Your task to perform on an android device: Go to Google Image 0: 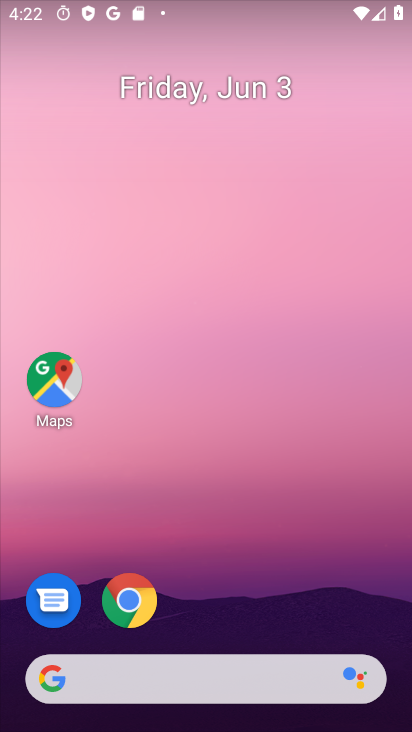
Step 0: drag from (389, 638) to (325, 288)
Your task to perform on an android device: Go to Google Image 1: 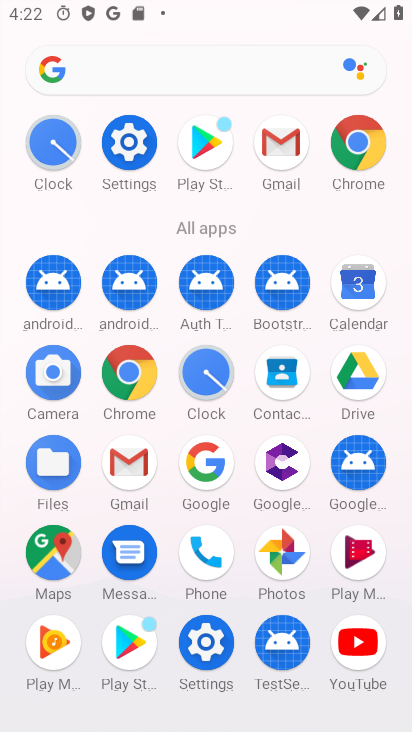
Step 1: click (199, 462)
Your task to perform on an android device: Go to Google Image 2: 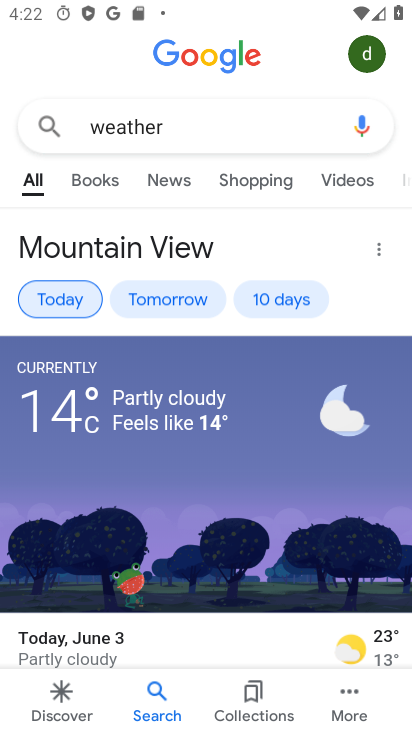
Step 2: task complete